Your task to perform on an android device: turn on location history Image 0: 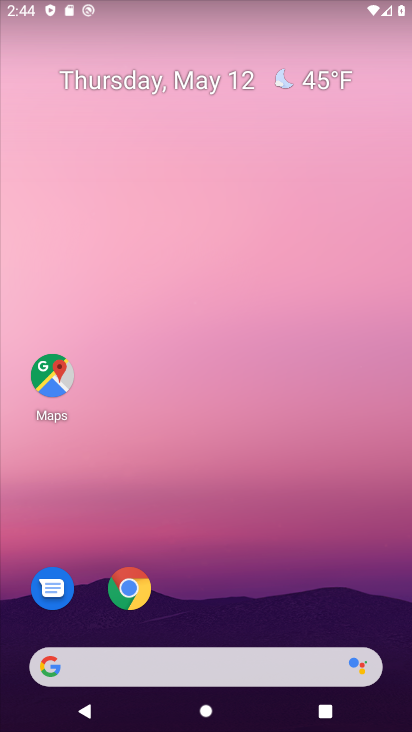
Step 0: drag from (206, 592) to (239, 55)
Your task to perform on an android device: turn on location history Image 1: 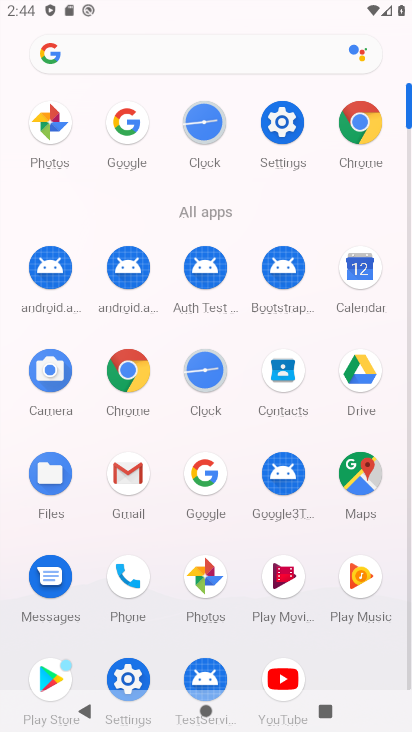
Step 1: click (289, 155)
Your task to perform on an android device: turn on location history Image 2: 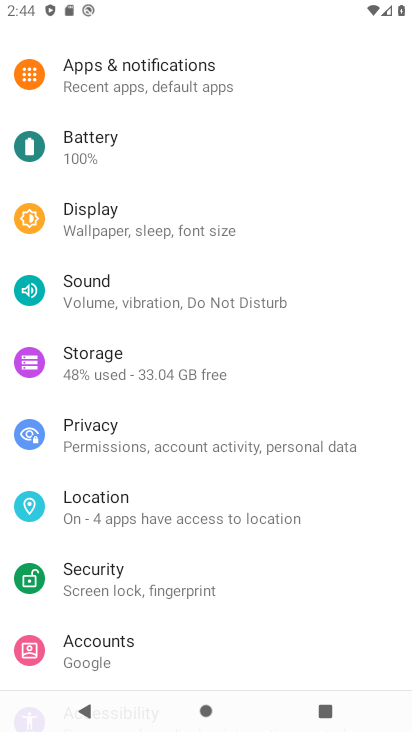
Step 2: click (92, 527)
Your task to perform on an android device: turn on location history Image 3: 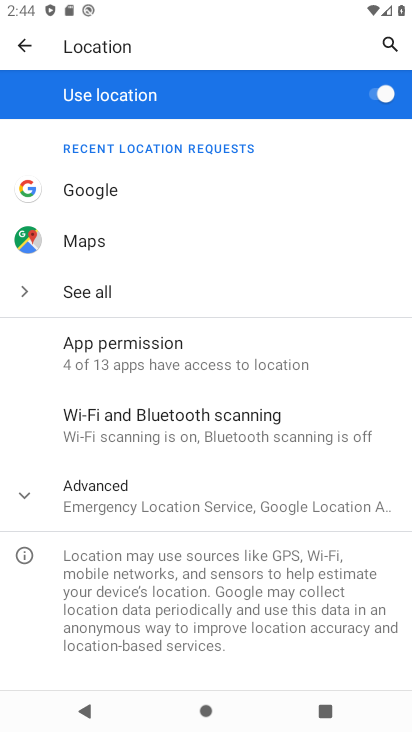
Step 3: click (110, 504)
Your task to perform on an android device: turn on location history Image 4: 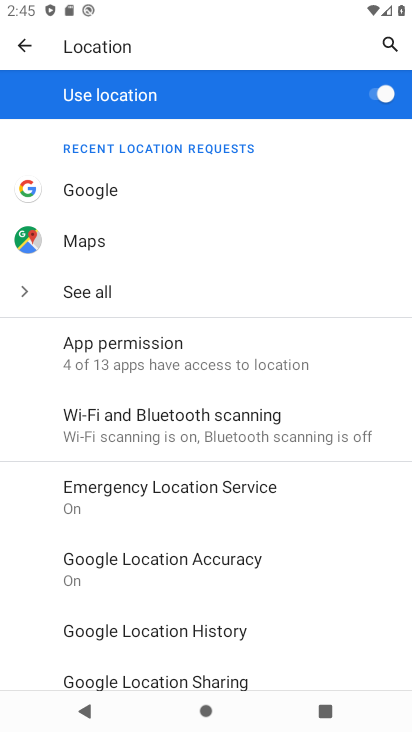
Step 4: drag from (182, 642) to (254, 257)
Your task to perform on an android device: turn on location history Image 5: 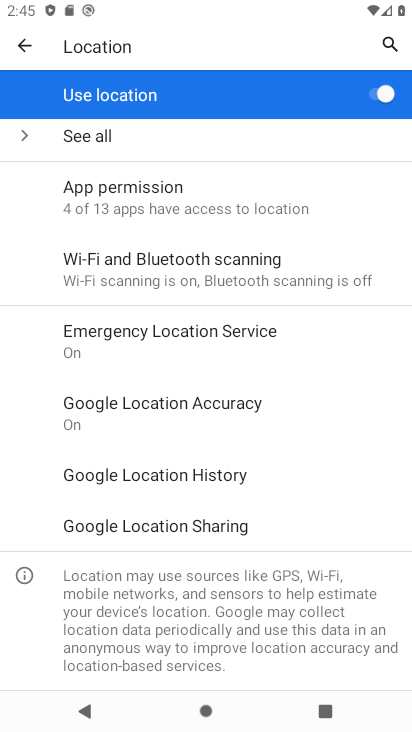
Step 5: click (197, 479)
Your task to perform on an android device: turn on location history Image 6: 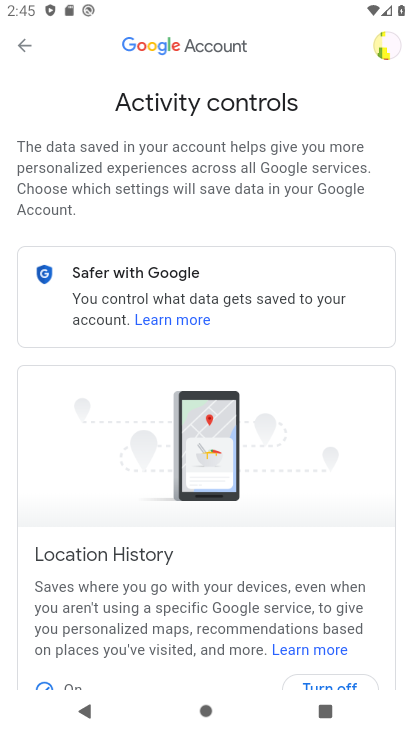
Step 6: click (275, 241)
Your task to perform on an android device: turn on location history Image 7: 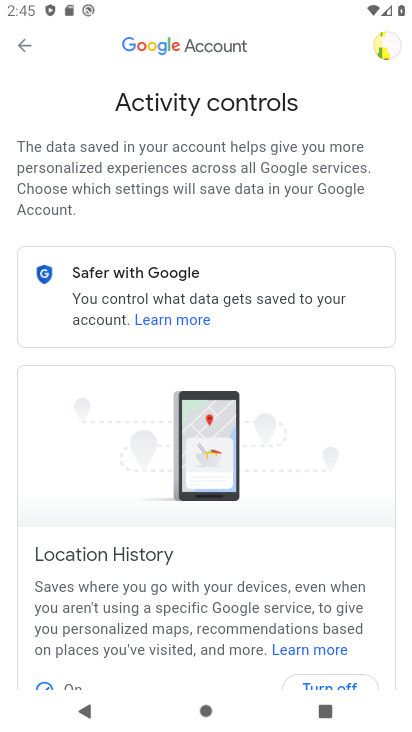
Step 7: task complete